Your task to perform on an android device: show emergency info Image 0: 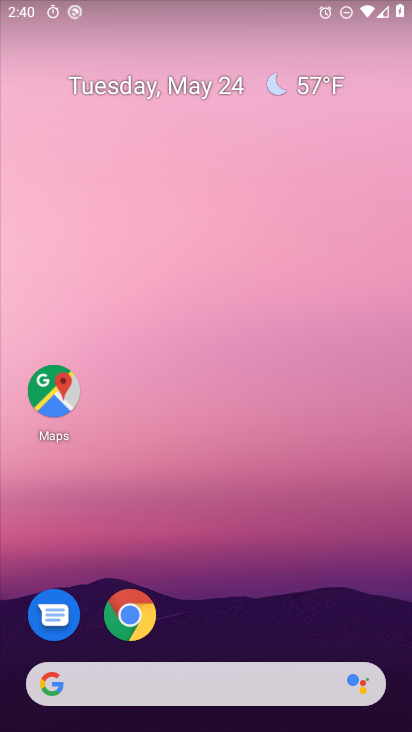
Step 0: drag from (216, 617) to (220, 201)
Your task to perform on an android device: show emergency info Image 1: 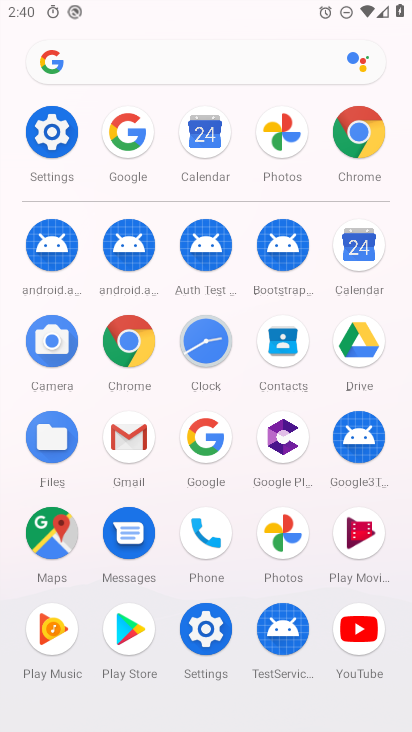
Step 1: click (49, 140)
Your task to perform on an android device: show emergency info Image 2: 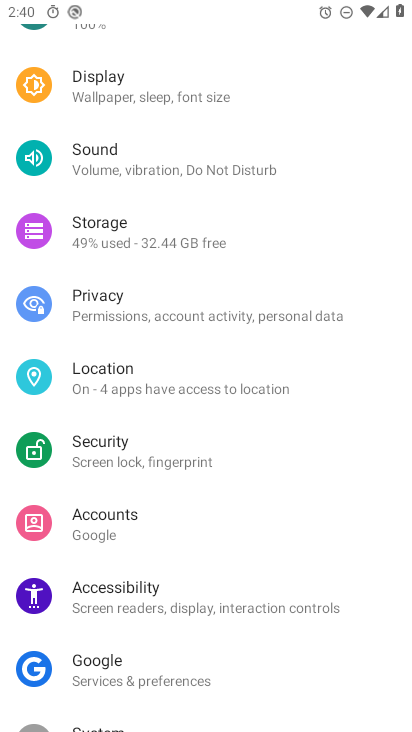
Step 2: drag from (199, 706) to (195, 225)
Your task to perform on an android device: show emergency info Image 3: 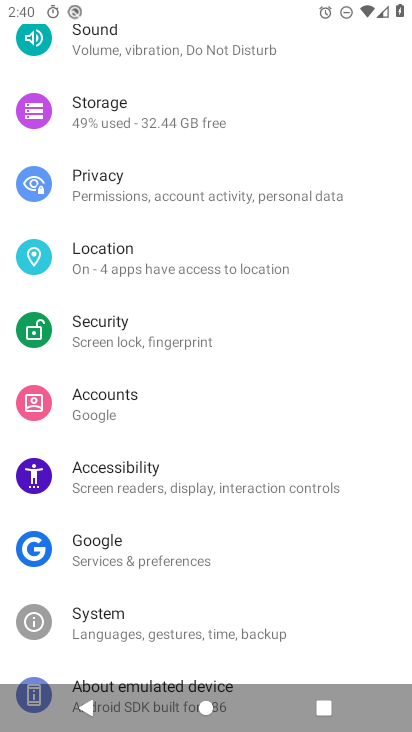
Step 3: drag from (177, 671) to (182, 330)
Your task to perform on an android device: show emergency info Image 4: 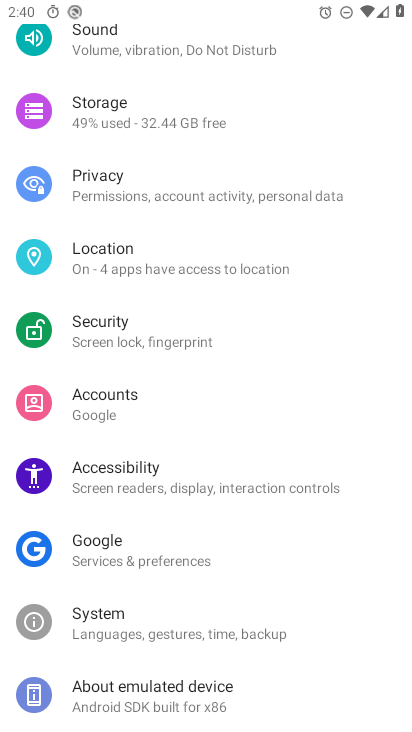
Step 4: click (130, 700)
Your task to perform on an android device: show emergency info Image 5: 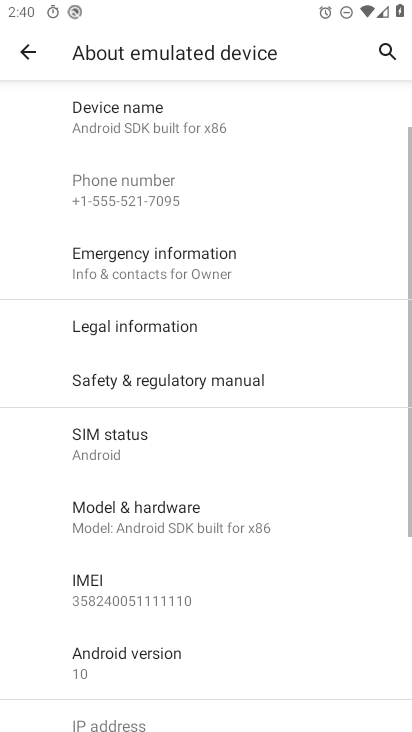
Step 5: click (175, 261)
Your task to perform on an android device: show emergency info Image 6: 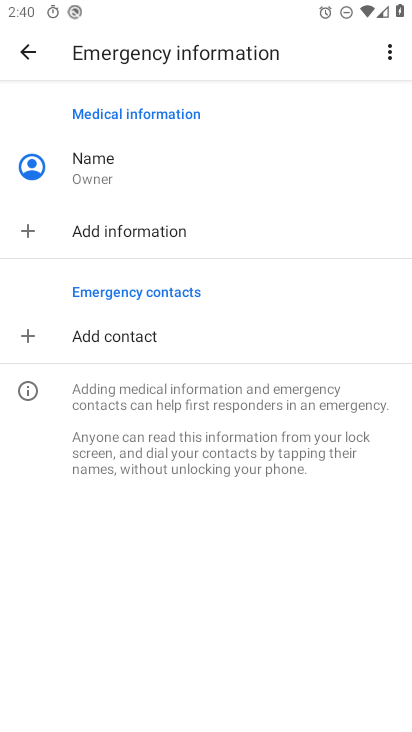
Step 6: task complete